Your task to perform on an android device: Open my contact list Image 0: 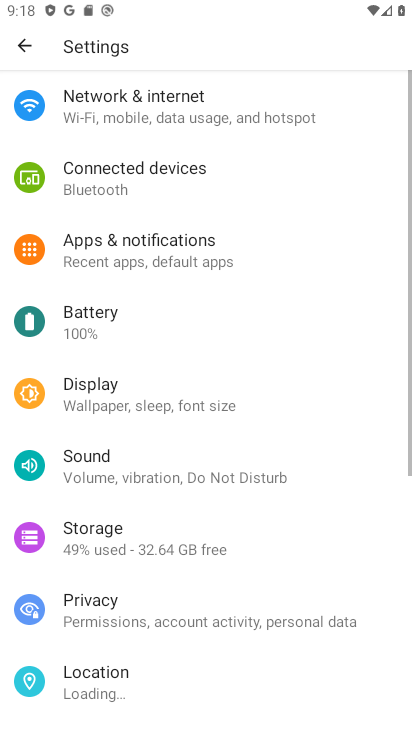
Step 0: press home button
Your task to perform on an android device: Open my contact list Image 1: 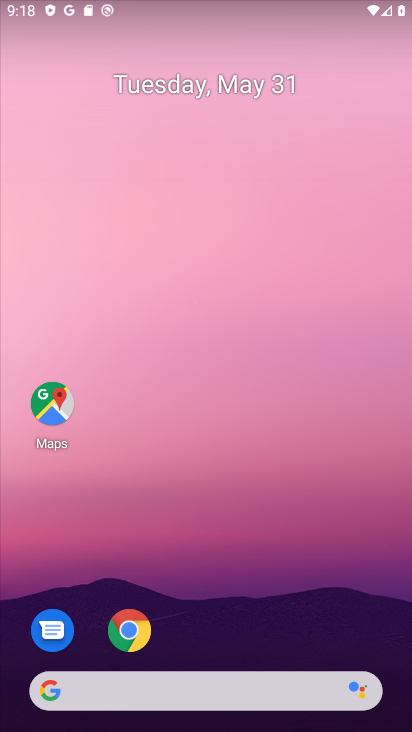
Step 1: drag from (120, 725) to (141, 86)
Your task to perform on an android device: Open my contact list Image 2: 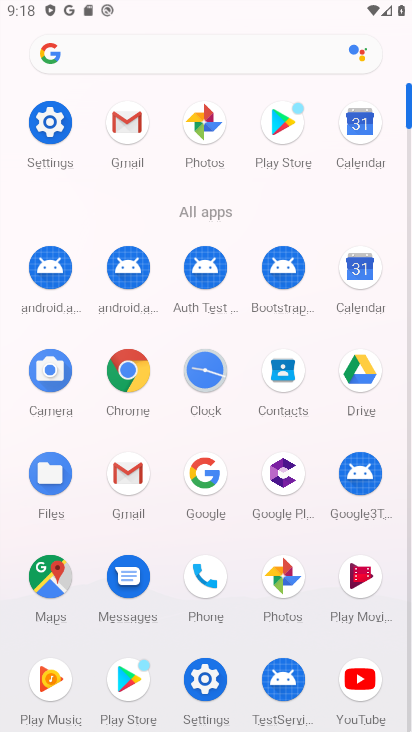
Step 2: click (286, 376)
Your task to perform on an android device: Open my contact list Image 3: 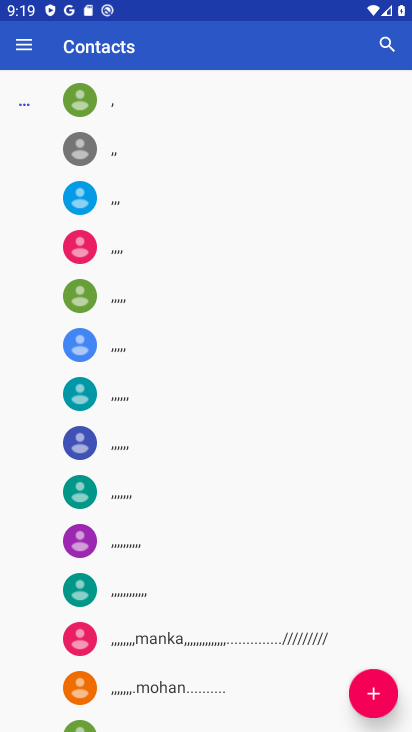
Step 3: task complete